Your task to perform on an android device: all mails in gmail Image 0: 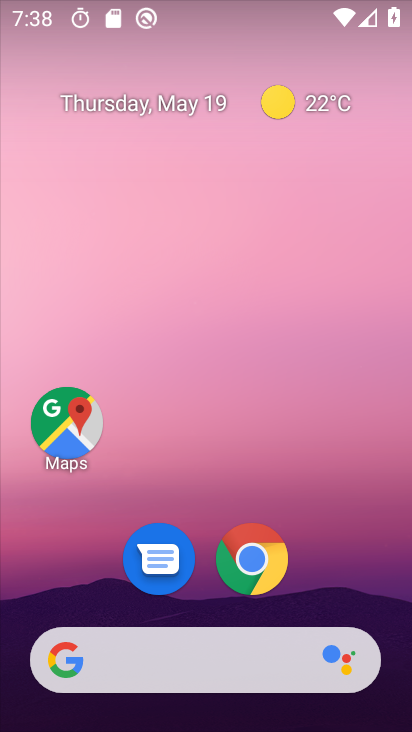
Step 0: drag from (301, 587) to (222, 27)
Your task to perform on an android device: all mails in gmail Image 1: 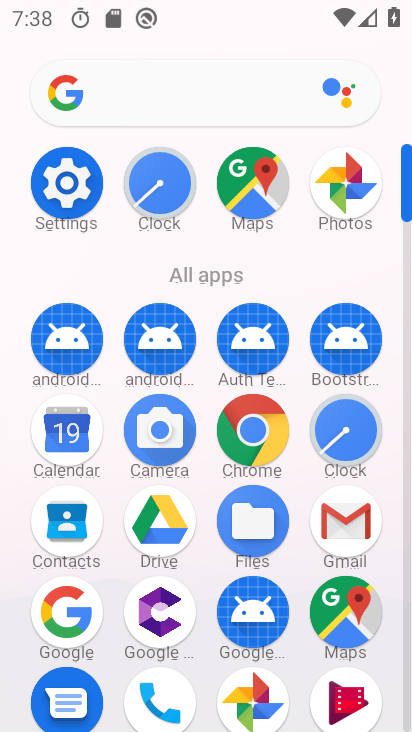
Step 1: click (338, 532)
Your task to perform on an android device: all mails in gmail Image 2: 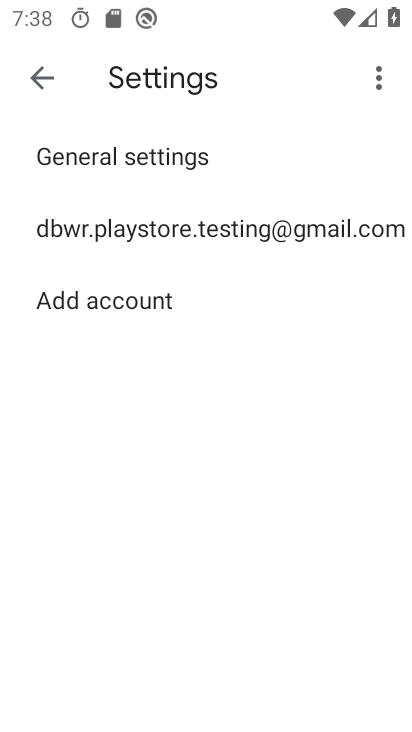
Step 2: click (51, 84)
Your task to perform on an android device: all mails in gmail Image 3: 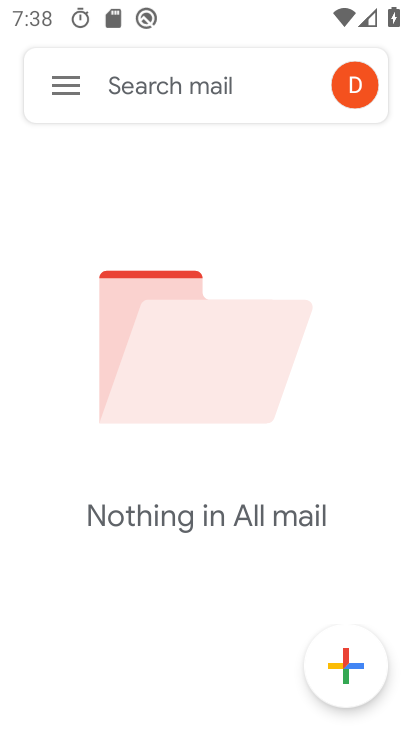
Step 3: click (54, 81)
Your task to perform on an android device: all mails in gmail Image 4: 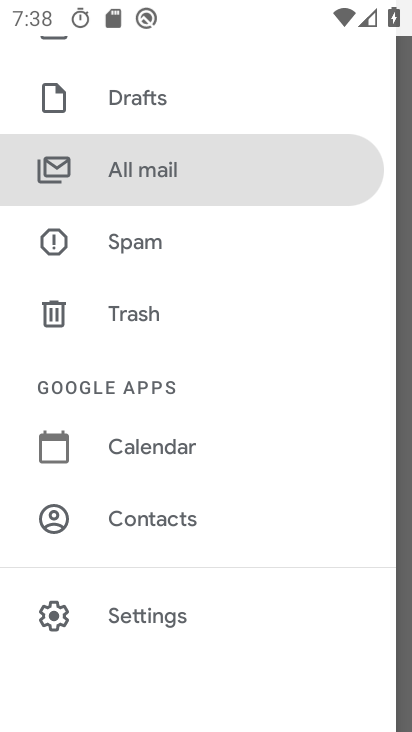
Step 4: click (193, 180)
Your task to perform on an android device: all mails in gmail Image 5: 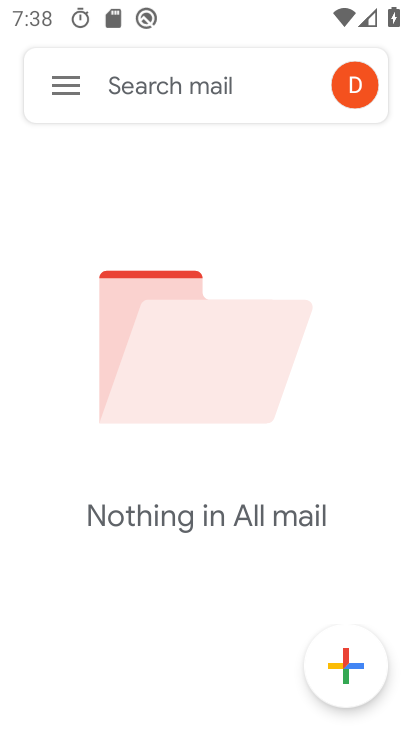
Step 5: task complete